Your task to perform on an android device: Open the map Image 0: 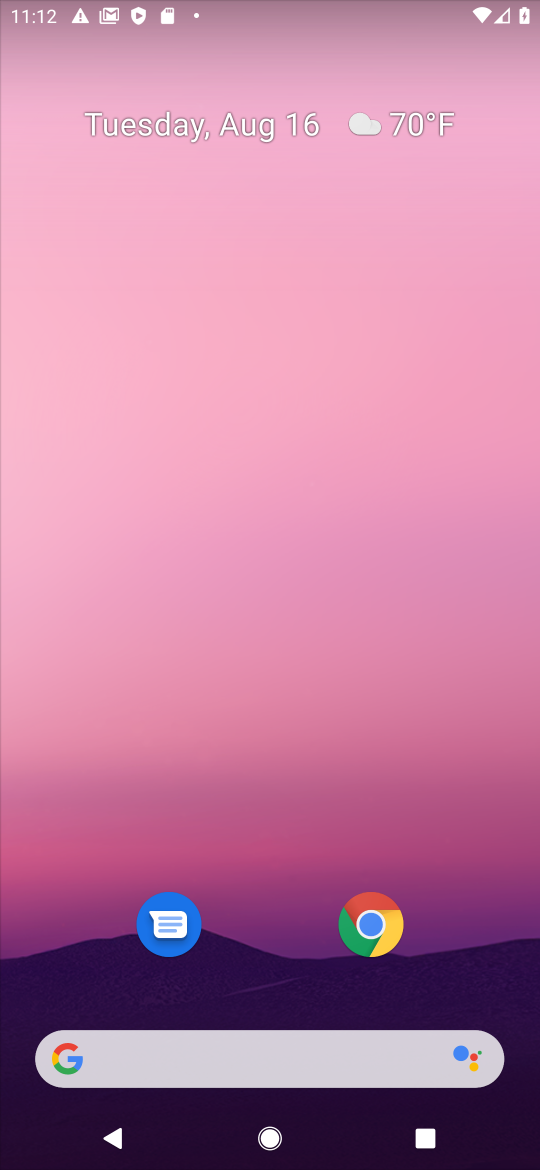
Step 0: drag from (266, 983) to (200, 41)
Your task to perform on an android device: Open the map Image 1: 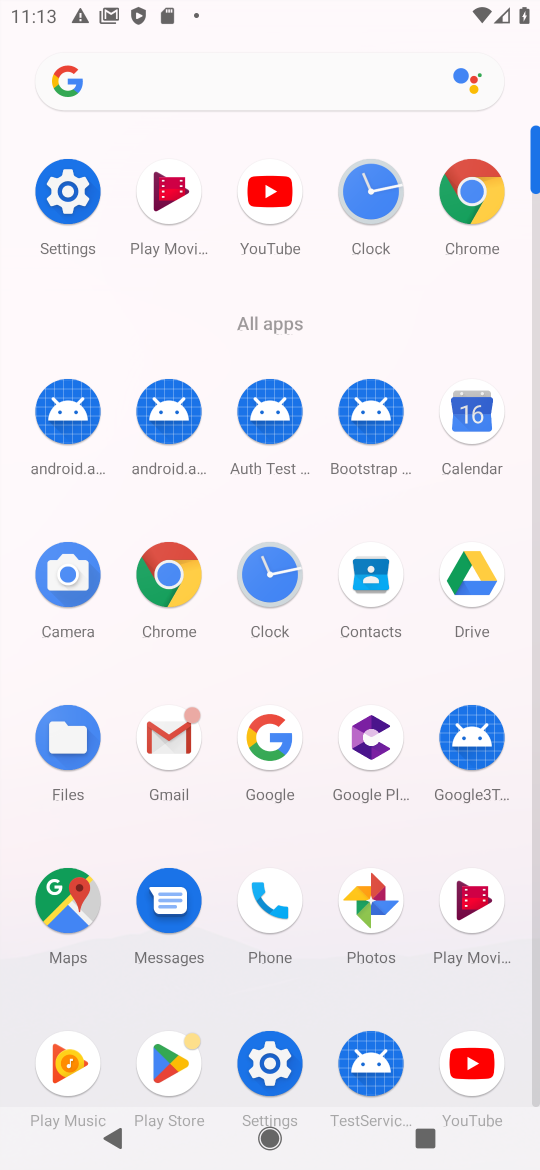
Step 1: click (48, 897)
Your task to perform on an android device: Open the map Image 2: 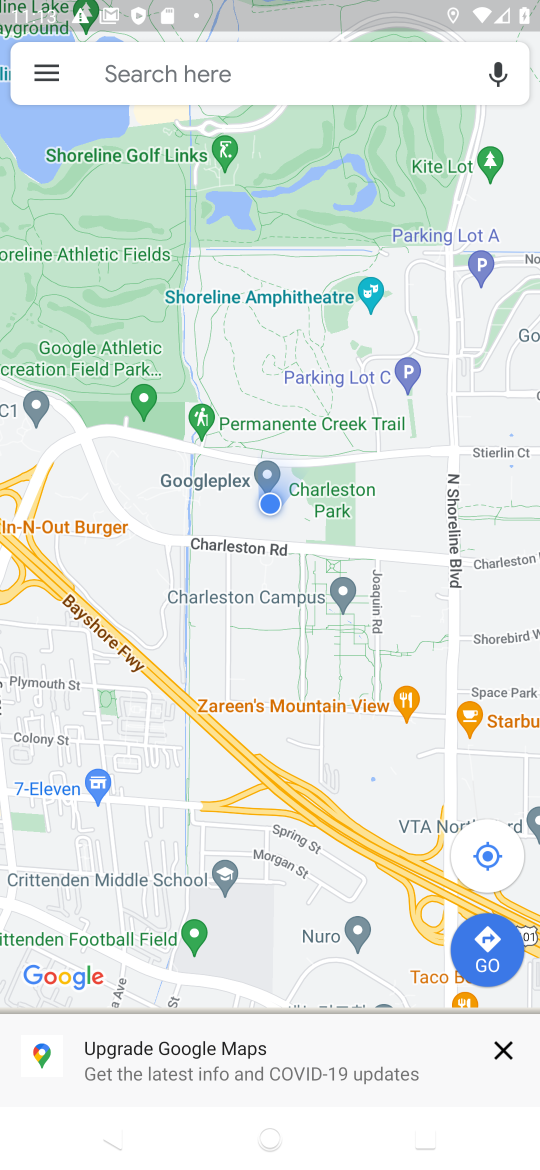
Step 2: task complete